Your task to perform on an android device: Go to Wikipedia Image 0: 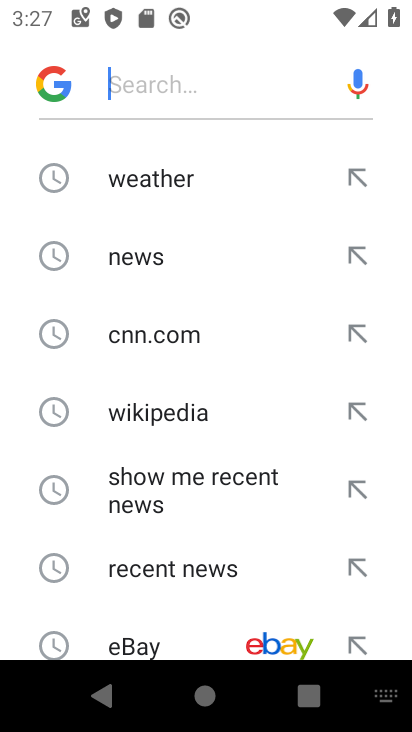
Step 0: press home button
Your task to perform on an android device: Go to Wikipedia Image 1: 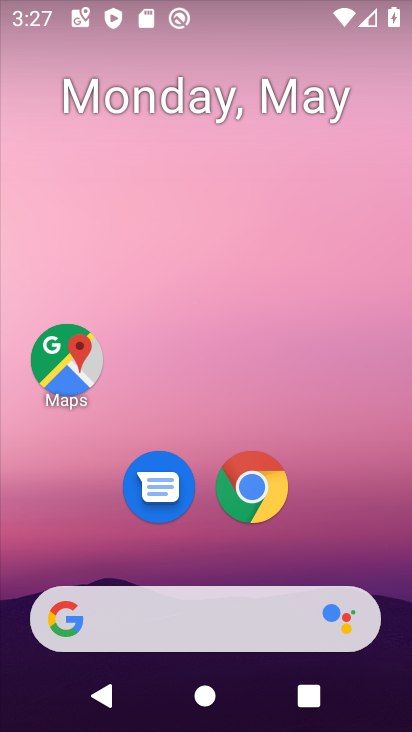
Step 1: click (239, 488)
Your task to perform on an android device: Go to Wikipedia Image 2: 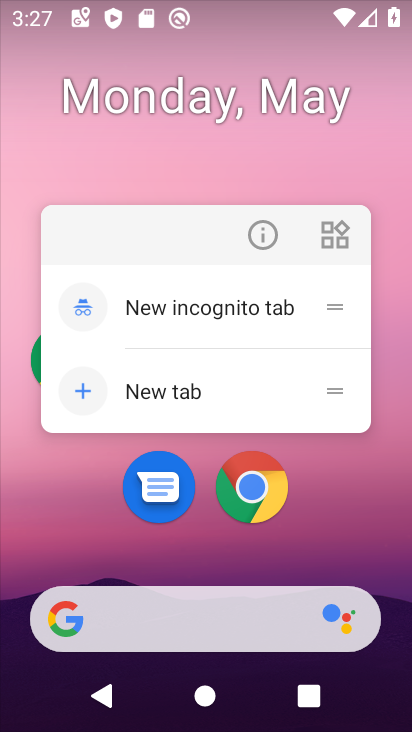
Step 2: click (253, 485)
Your task to perform on an android device: Go to Wikipedia Image 3: 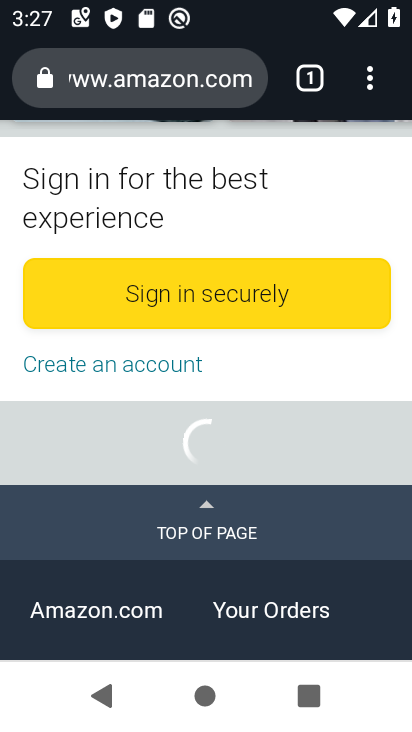
Step 3: click (318, 87)
Your task to perform on an android device: Go to Wikipedia Image 4: 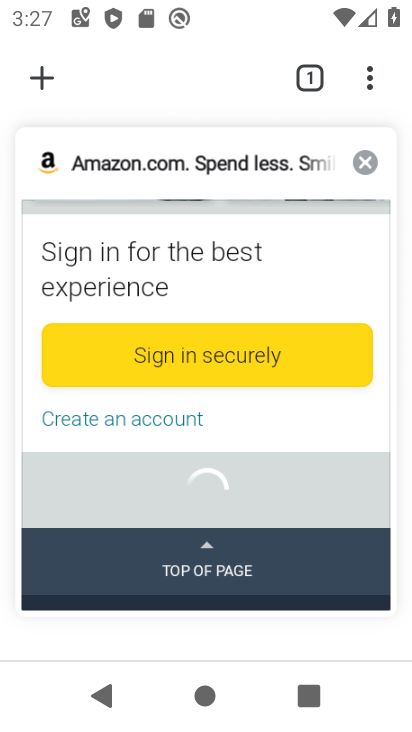
Step 4: click (367, 159)
Your task to perform on an android device: Go to Wikipedia Image 5: 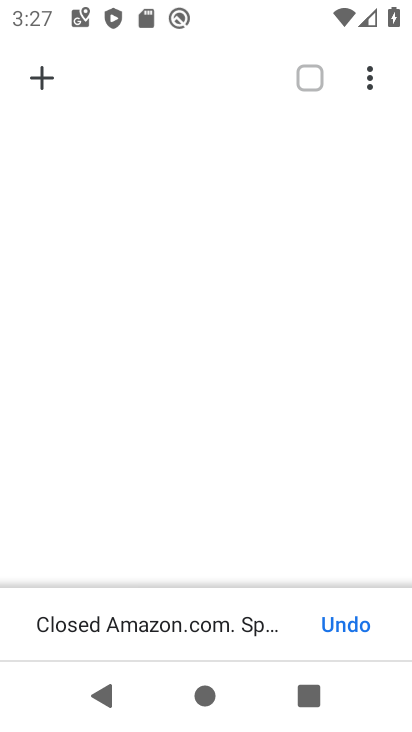
Step 5: click (38, 83)
Your task to perform on an android device: Go to Wikipedia Image 6: 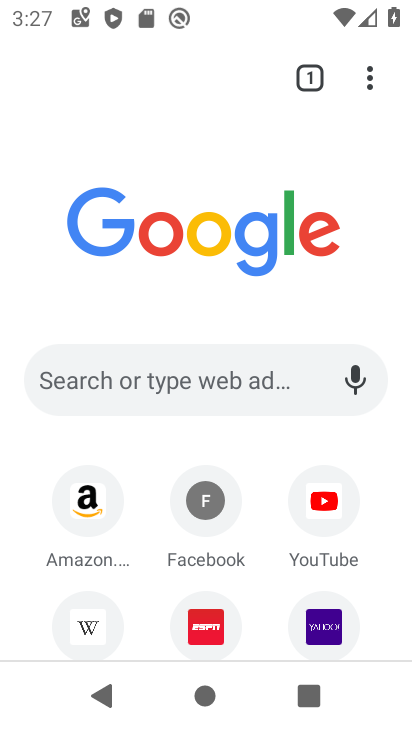
Step 6: click (93, 625)
Your task to perform on an android device: Go to Wikipedia Image 7: 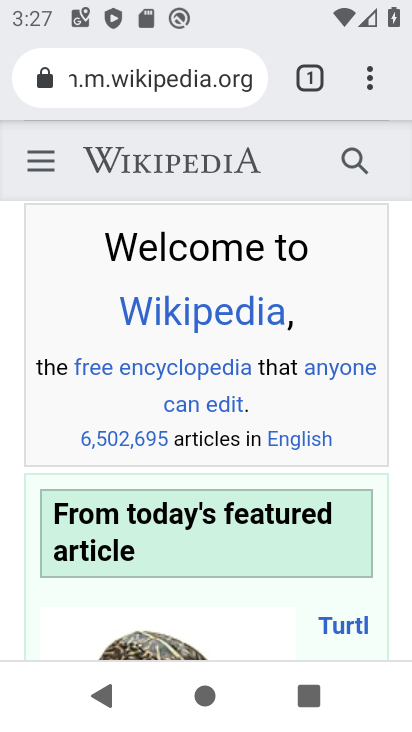
Step 7: task complete